Your task to perform on an android device: Add jbl charge 4 to the cart on target.com Image 0: 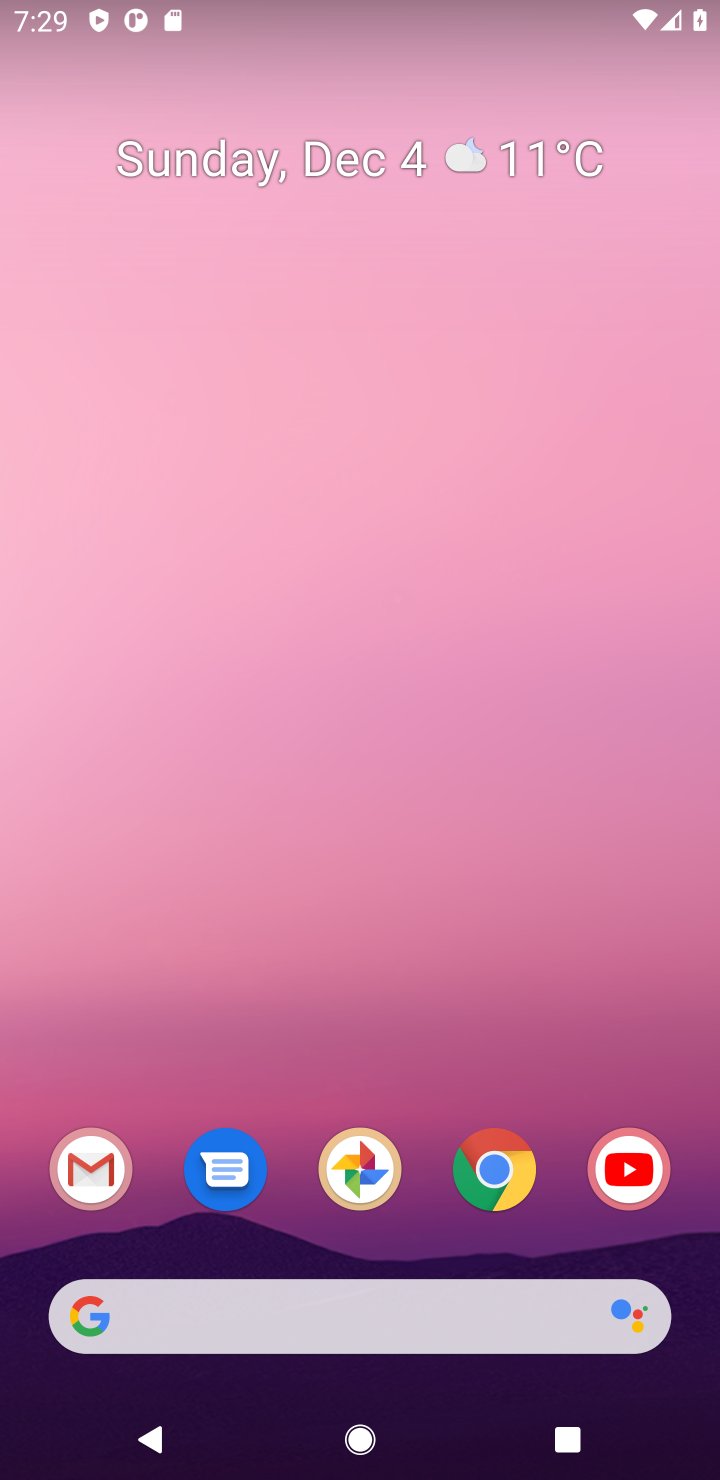
Step 0: drag from (457, 1401) to (702, 1311)
Your task to perform on an android device: Add jbl charge 4 to the cart on target.com Image 1: 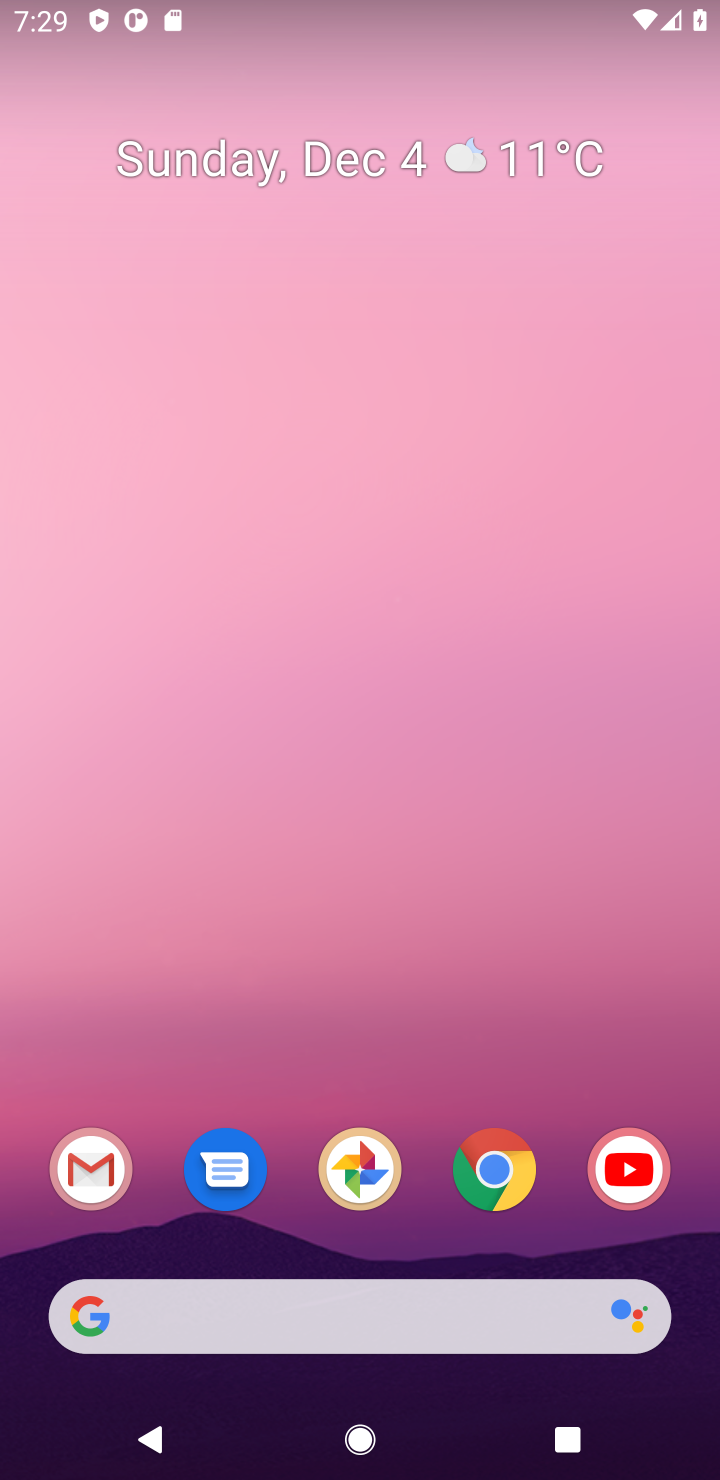
Step 1: drag from (459, 1379) to (516, 20)
Your task to perform on an android device: Add jbl charge 4 to the cart on target.com Image 2: 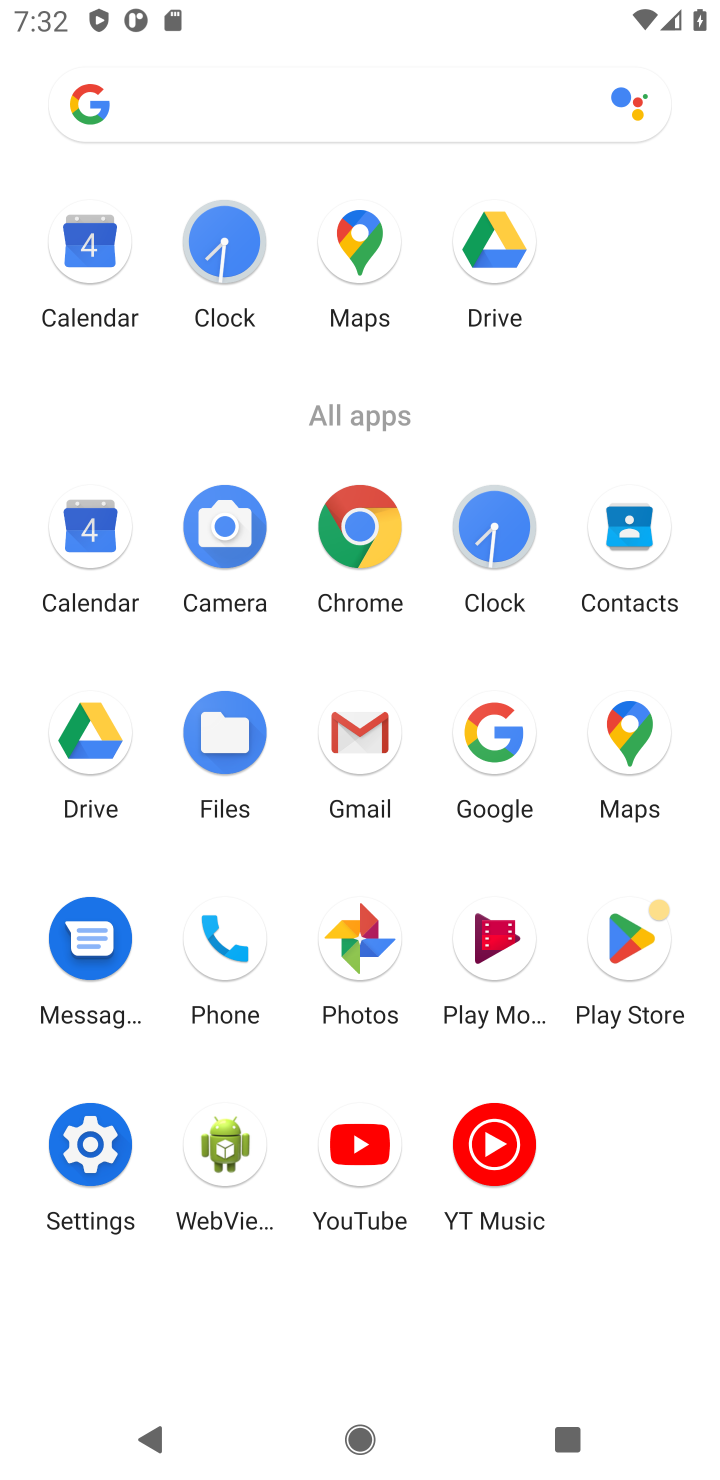
Step 2: click (354, 520)
Your task to perform on an android device: Add jbl charge 4 to the cart on target.com Image 3: 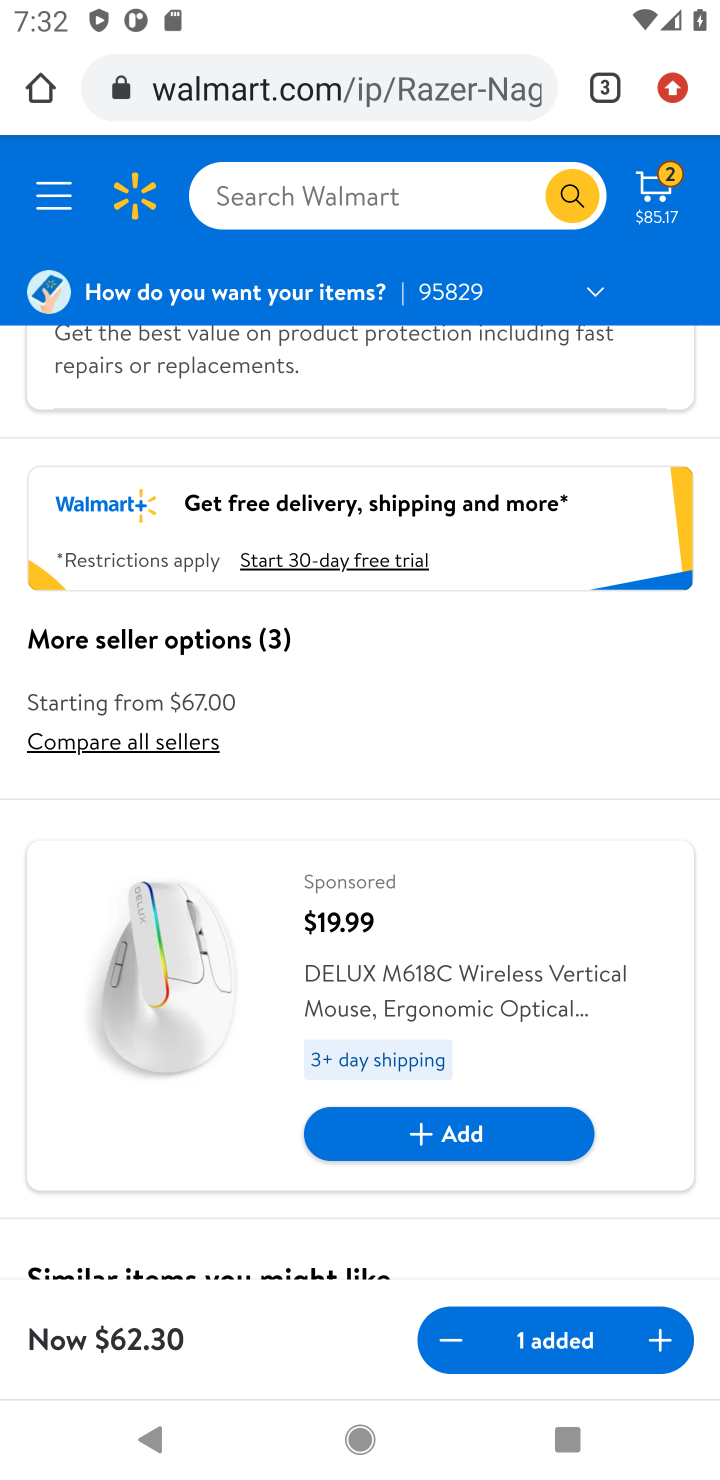
Step 3: click (289, 63)
Your task to perform on an android device: Add jbl charge 4 to the cart on target.com Image 4: 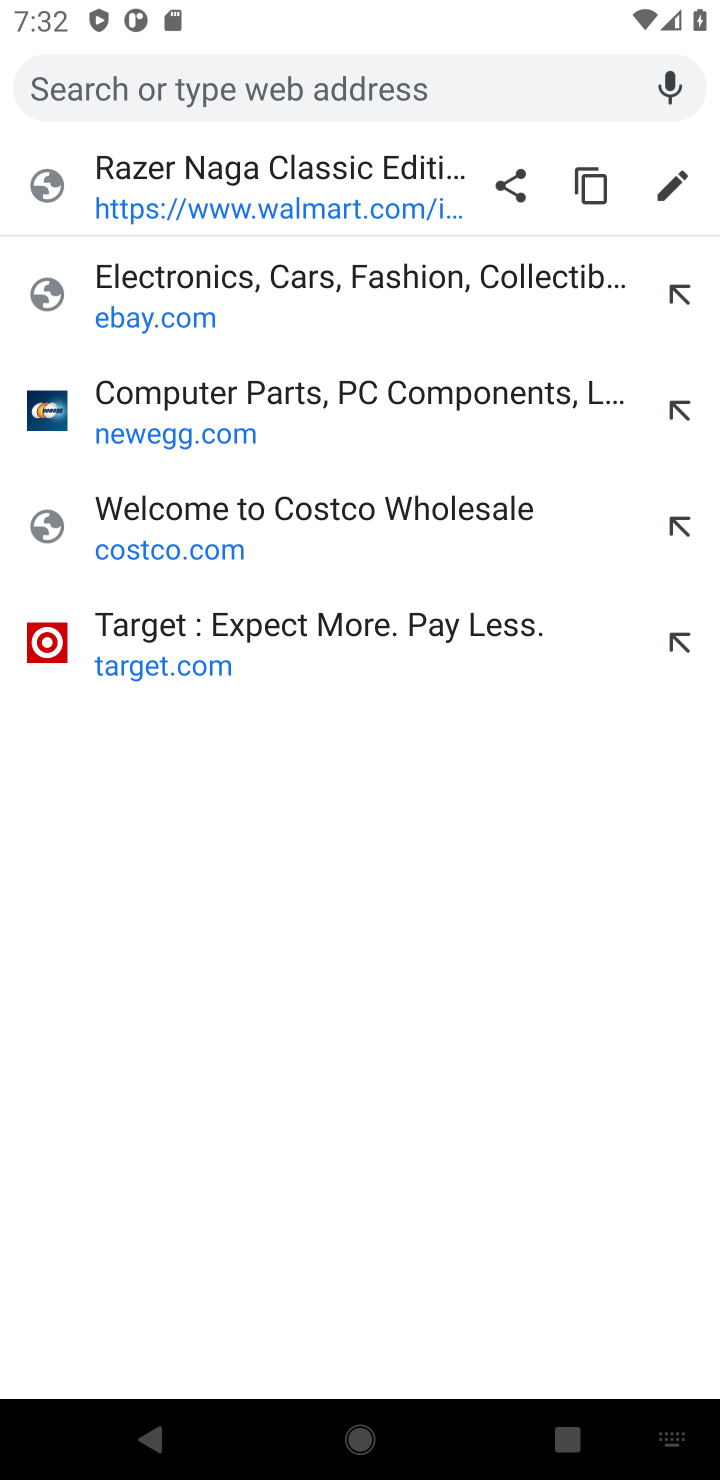
Step 4: type " target.com"
Your task to perform on an android device: Add jbl charge 4 to the cart on target.com Image 5: 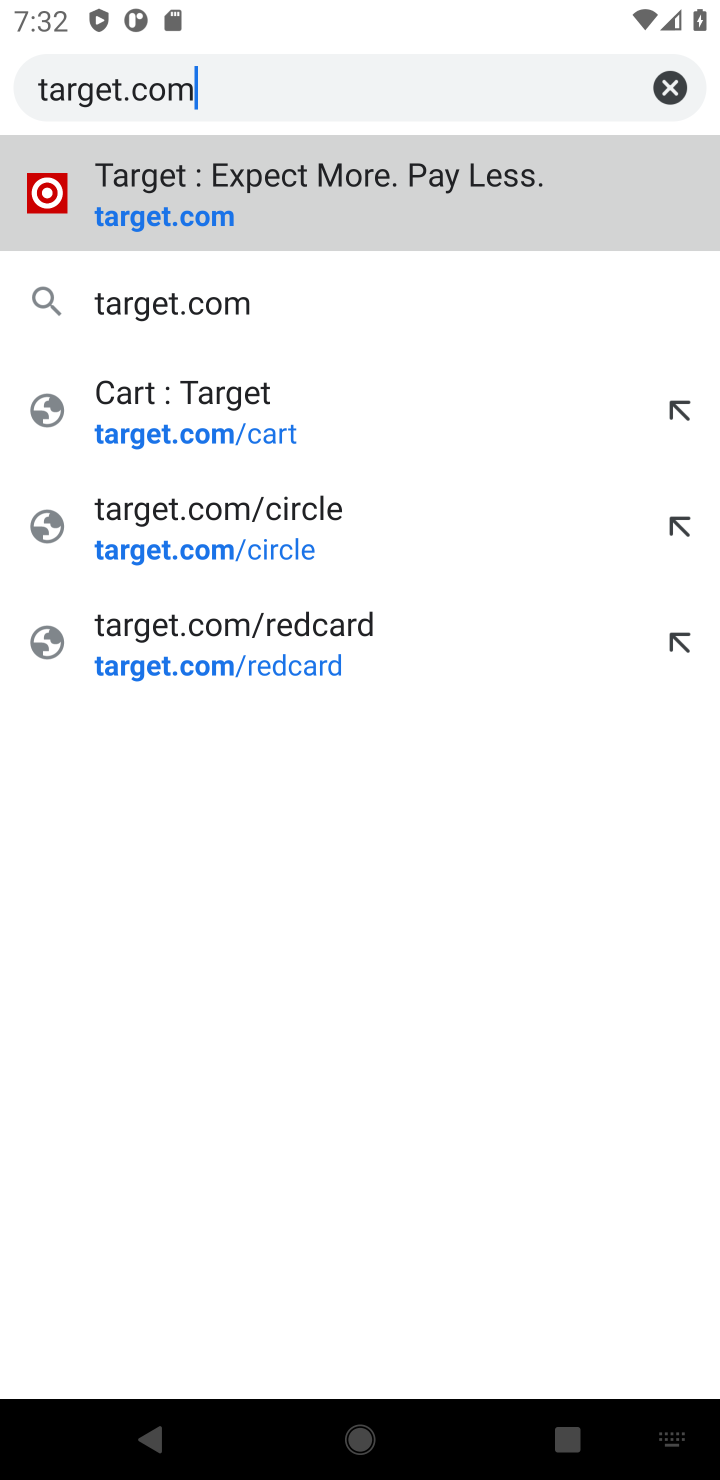
Step 5: click (144, 216)
Your task to perform on an android device: Add jbl charge 4 to the cart on target.com Image 6: 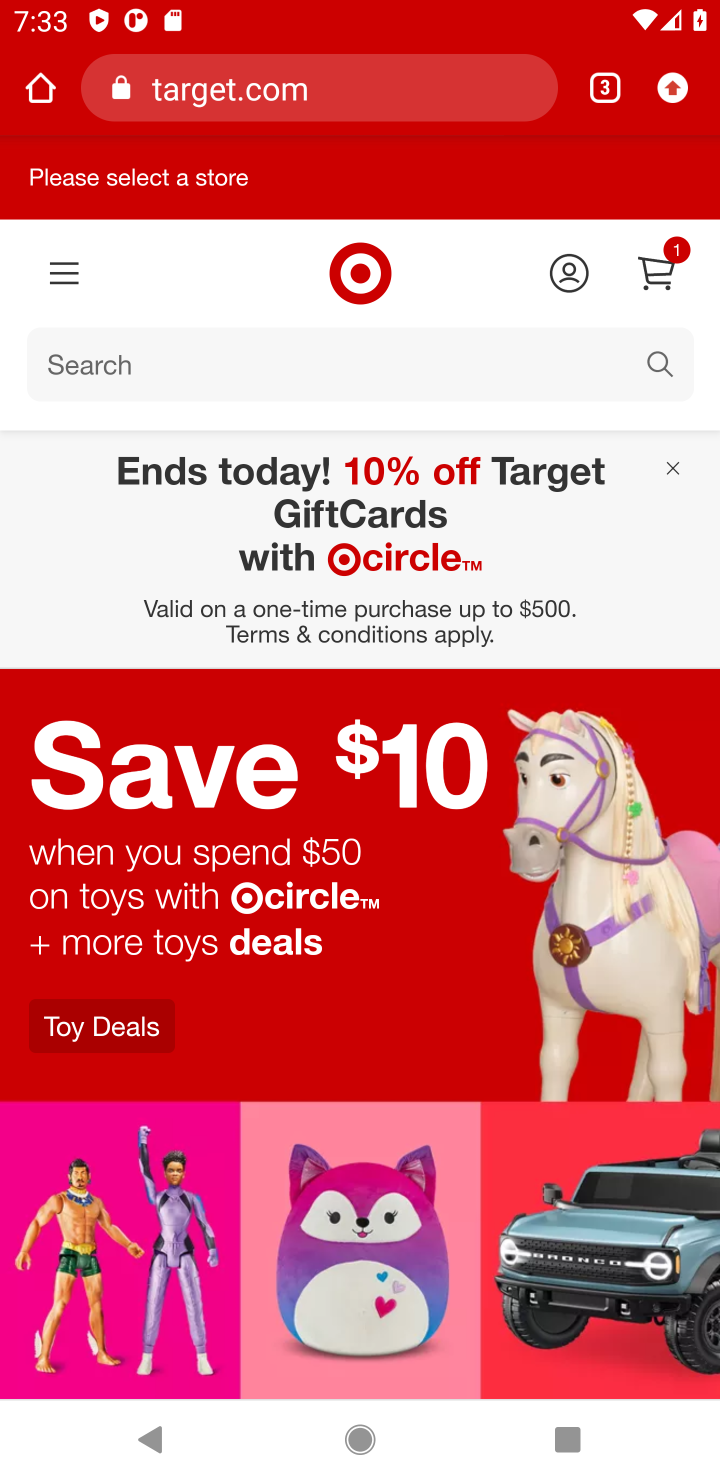
Step 6: click (658, 361)
Your task to perform on an android device: Add jbl charge 4 to the cart on target.com Image 7: 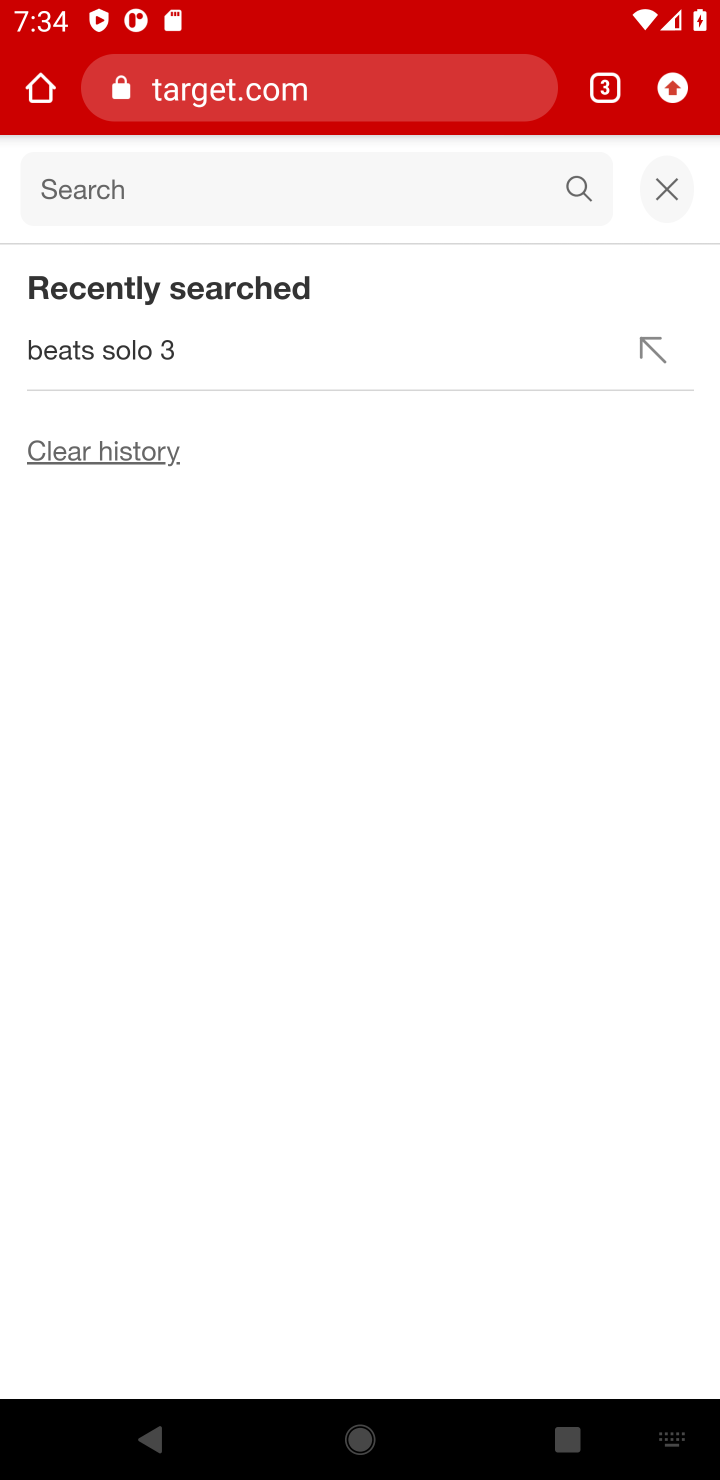
Step 7: type " jbl charge 4"
Your task to perform on an android device: Add jbl charge 4 to the cart on target.com Image 8: 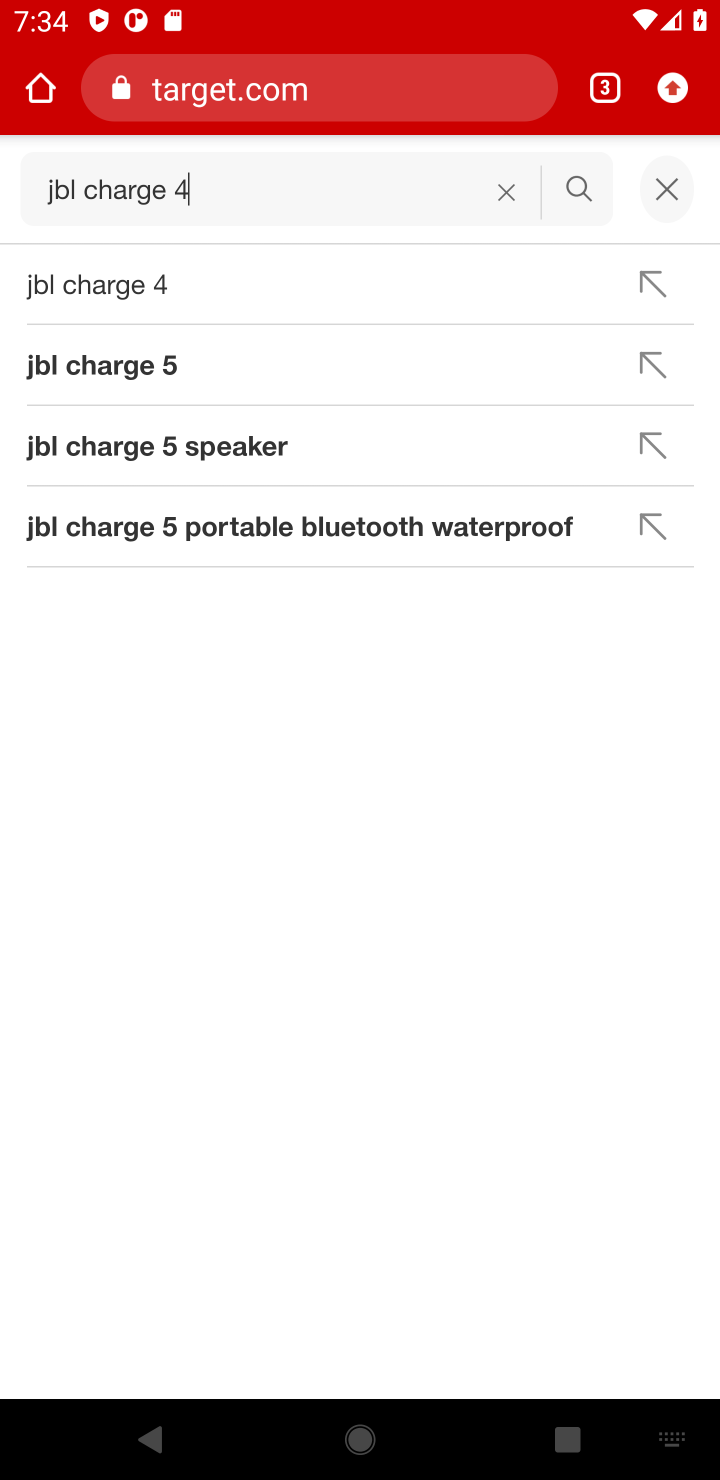
Step 8: click (86, 282)
Your task to perform on an android device: Add jbl charge 4 to the cart on target.com Image 9: 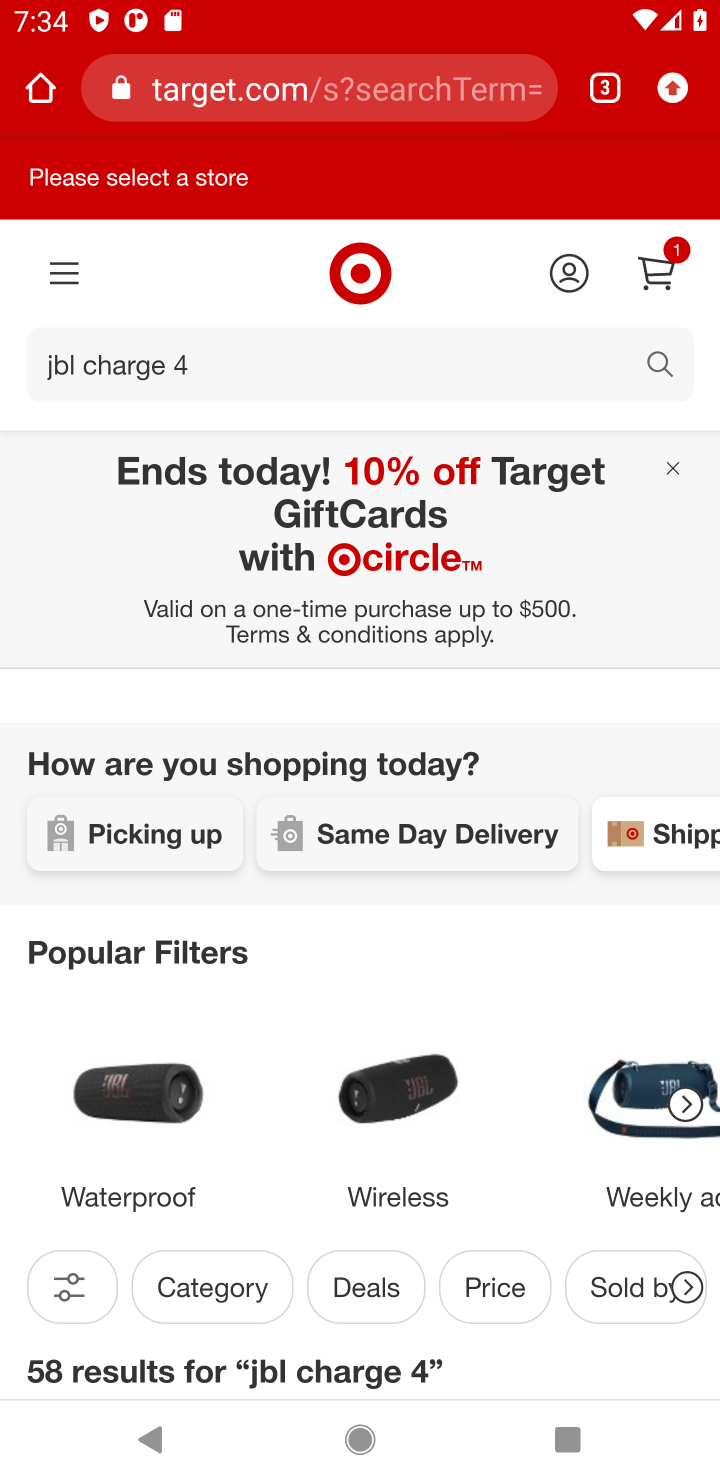
Step 9: drag from (489, 1181) to (497, 413)
Your task to perform on an android device: Add jbl charge 4 to the cart on target.com Image 10: 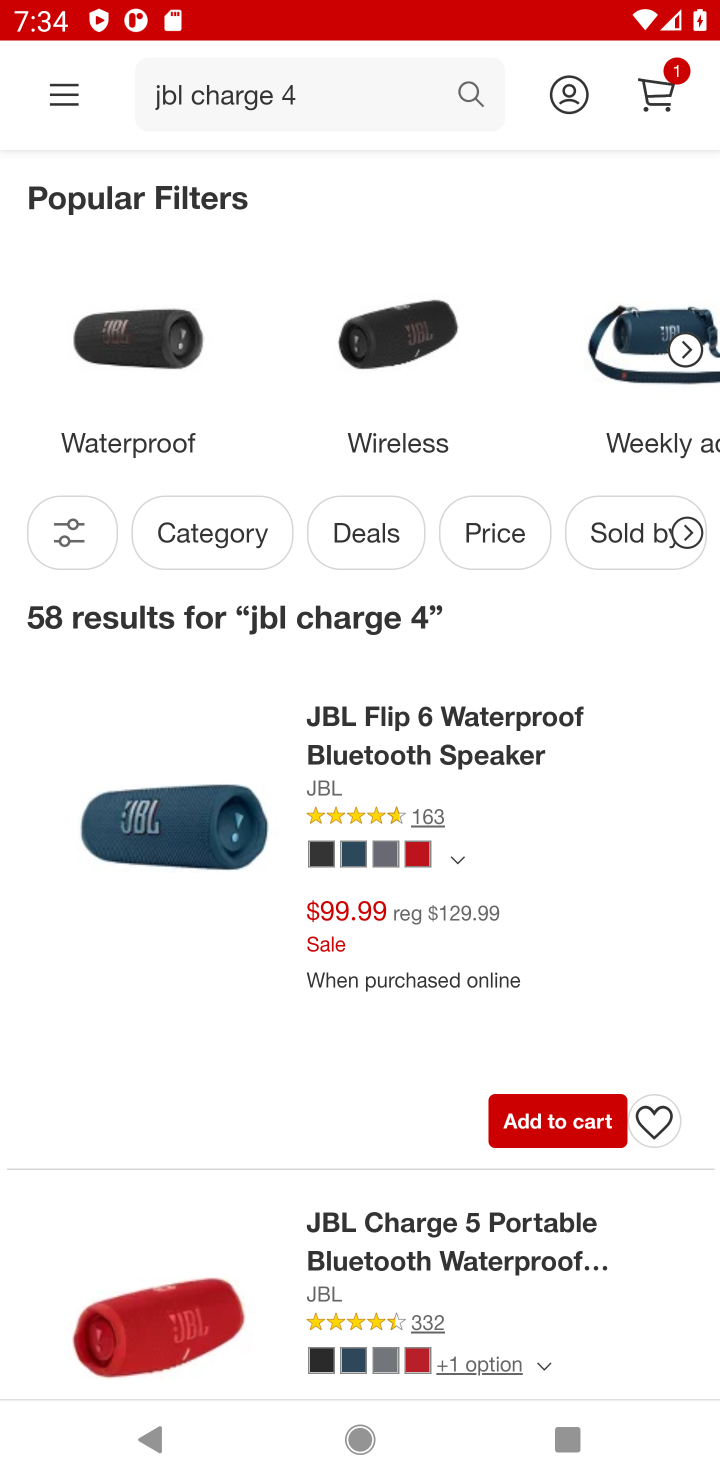
Step 10: click (552, 1121)
Your task to perform on an android device: Add jbl charge 4 to the cart on target.com Image 11: 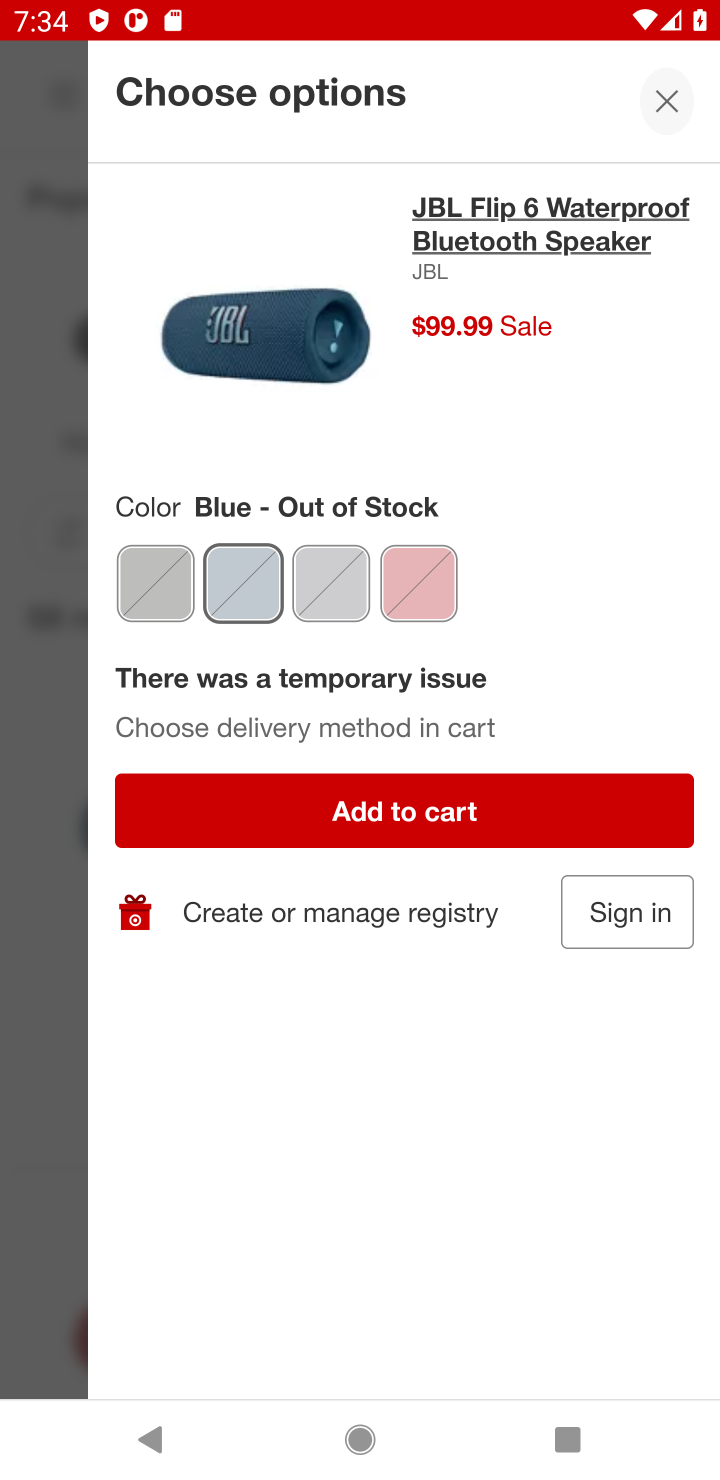
Step 11: click (384, 811)
Your task to perform on an android device: Add jbl charge 4 to the cart on target.com Image 12: 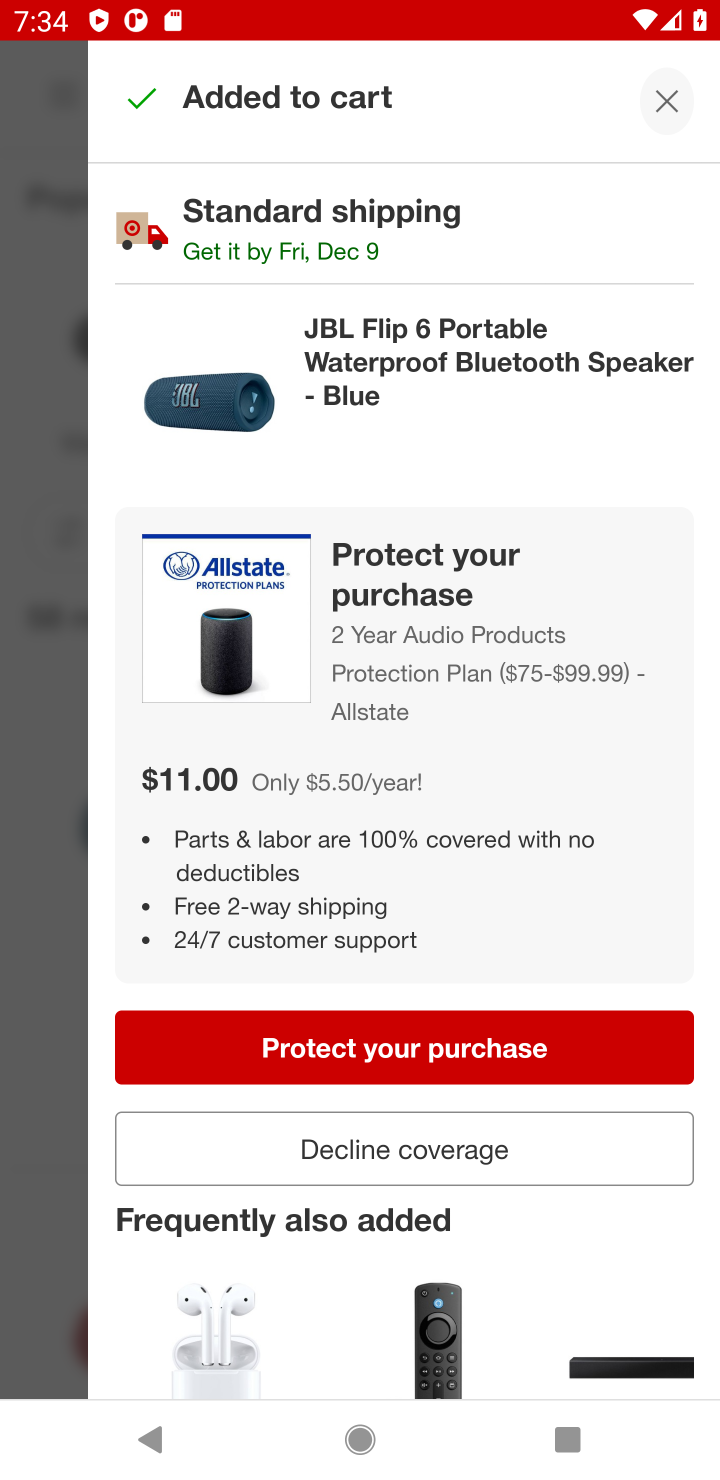
Step 12: task complete